Your task to perform on an android device: remove spam from my inbox in the gmail app Image 0: 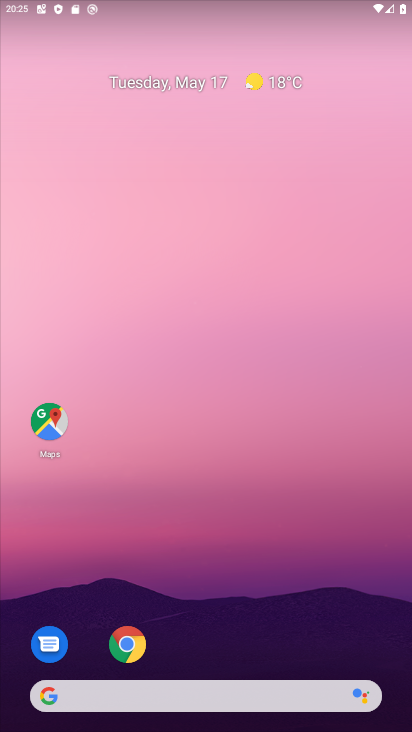
Step 0: drag from (214, 569) to (214, 205)
Your task to perform on an android device: remove spam from my inbox in the gmail app Image 1: 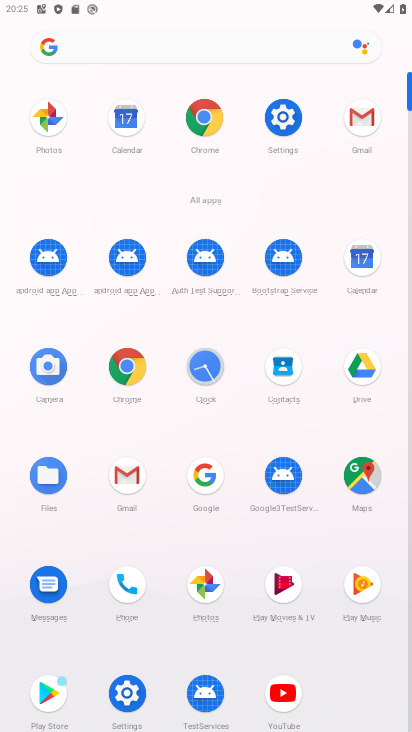
Step 1: click (352, 104)
Your task to perform on an android device: remove spam from my inbox in the gmail app Image 2: 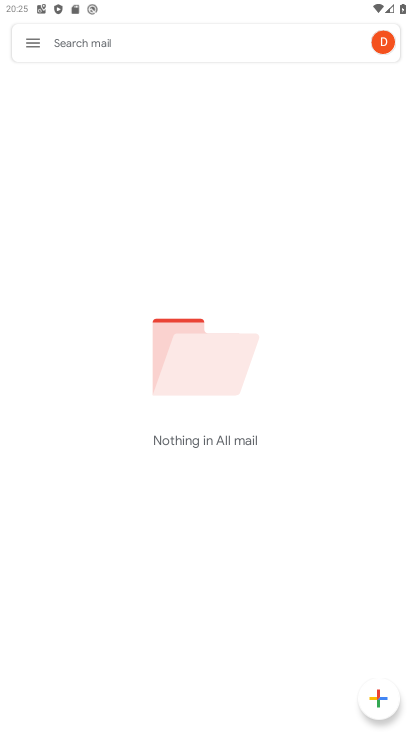
Step 2: click (36, 34)
Your task to perform on an android device: remove spam from my inbox in the gmail app Image 3: 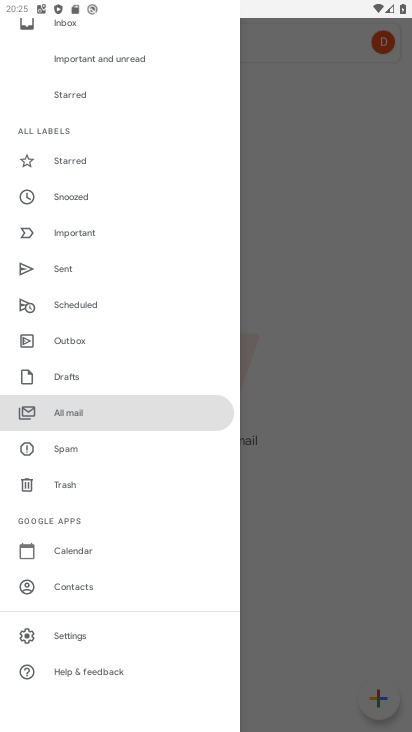
Step 3: click (81, 448)
Your task to perform on an android device: remove spam from my inbox in the gmail app Image 4: 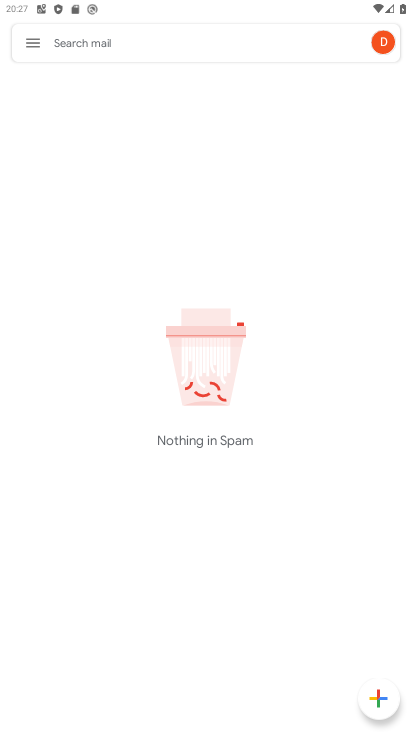
Step 4: click (22, 37)
Your task to perform on an android device: remove spam from my inbox in the gmail app Image 5: 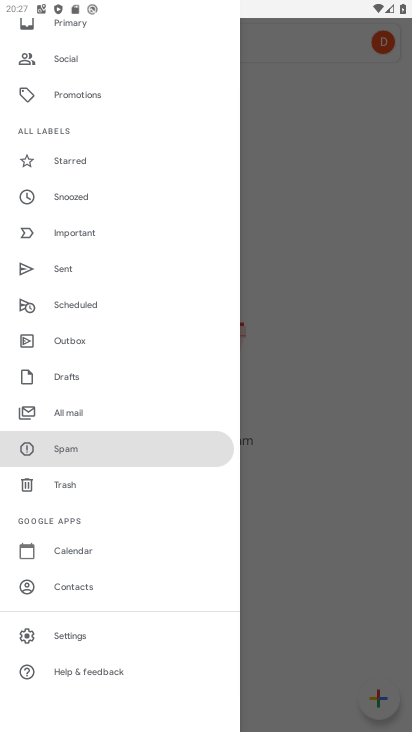
Step 5: click (78, 445)
Your task to perform on an android device: remove spam from my inbox in the gmail app Image 6: 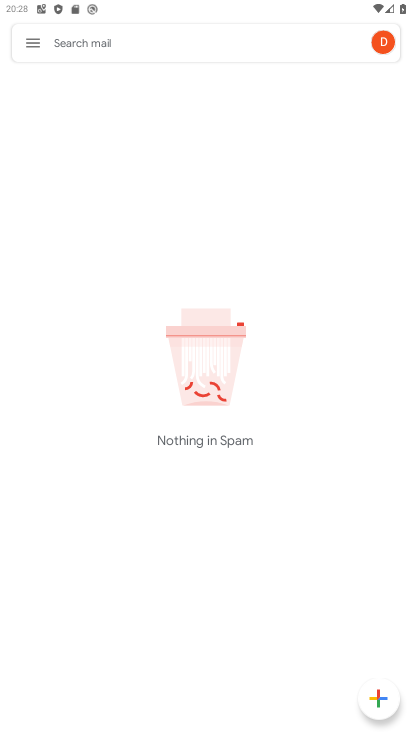
Step 6: task complete